Your task to perform on an android device: toggle improve location accuracy Image 0: 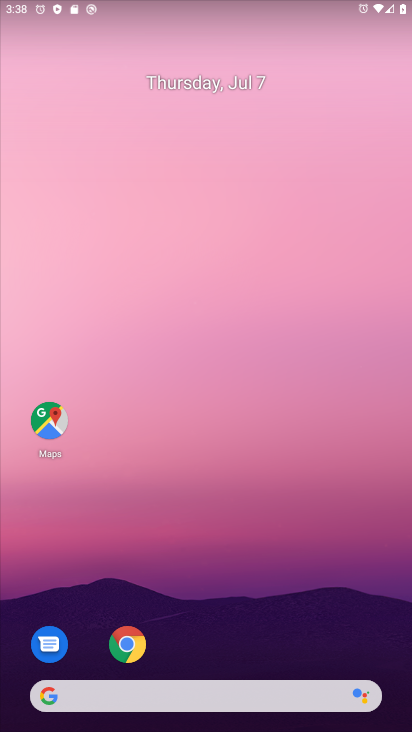
Step 0: press home button
Your task to perform on an android device: toggle improve location accuracy Image 1: 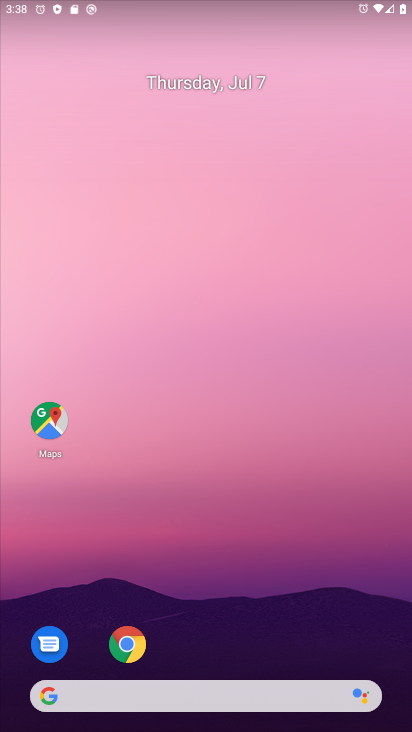
Step 1: drag from (304, 616) to (213, 86)
Your task to perform on an android device: toggle improve location accuracy Image 2: 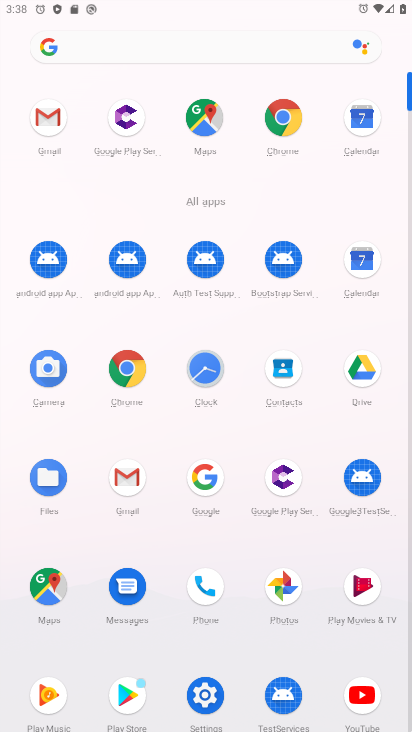
Step 2: click (208, 685)
Your task to perform on an android device: toggle improve location accuracy Image 3: 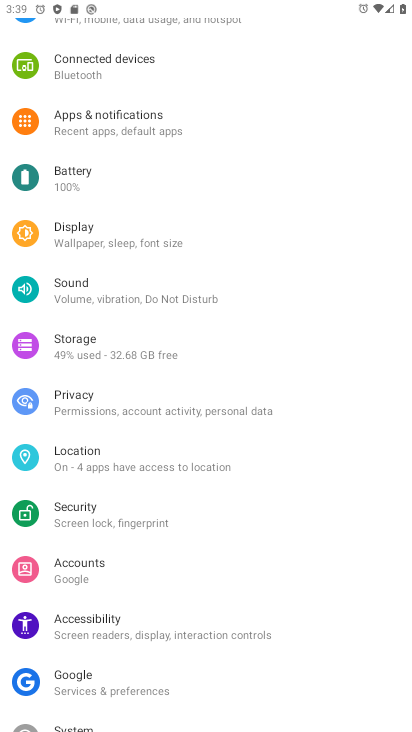
Step 3: click (92, 466)
Your task to perform on an android device: toggle improve location accuracy Image 4: 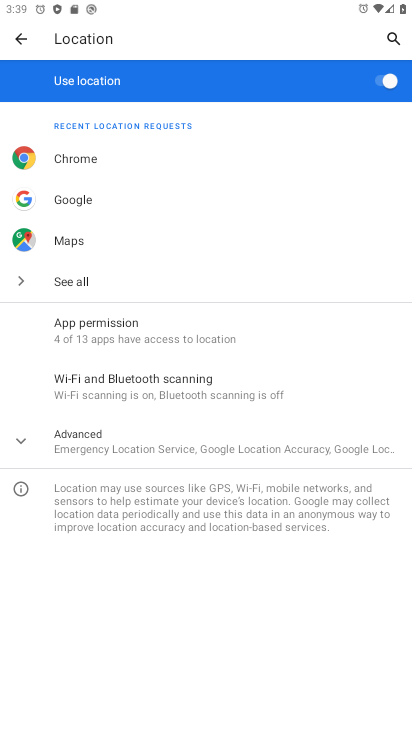
Step 4: click (95, 438)
Your task to perform on an android device: toggle improve location accuracy Image 5: 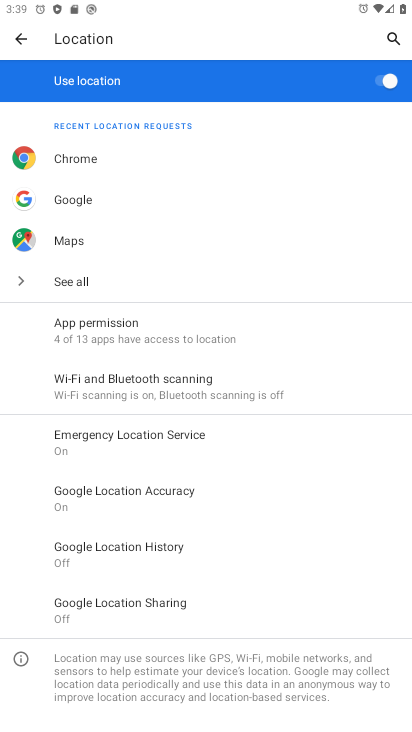
Step 5: click (129, 498)
Your task to perform on an android device: toggle improve location accuracy Image 6: 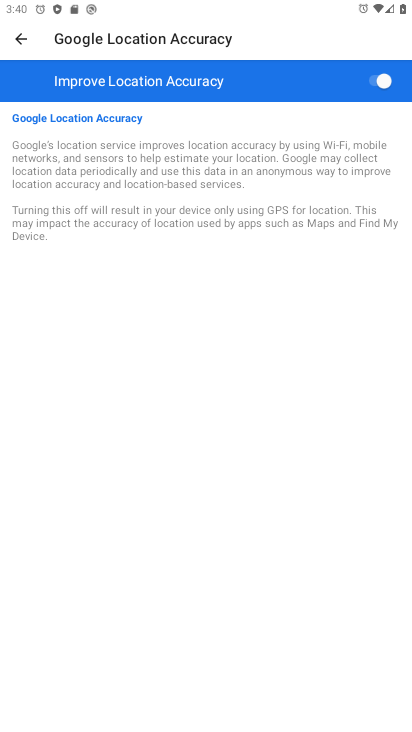
Step 6: click (369, 92)
Your task to perform on an android device: toggle improve location accuracy Image 7: 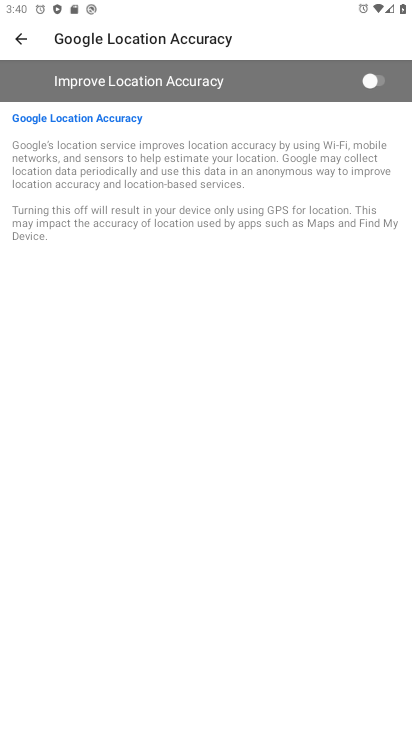
Step 7: task complete